Your task to perform on an android device: Add jbl charge 4 to the cart on ebay.com, then select checkout. Image 0: 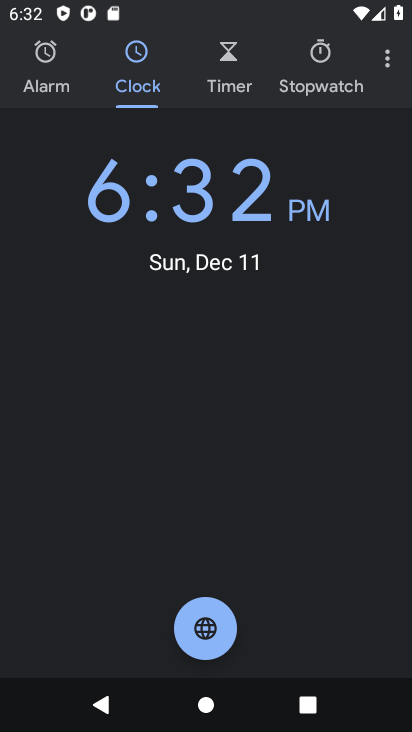
Step 0: press home button
Your task to perform on an android device: Add jbl charge 4 to the cart on ebay.com, then select checkout. Image 1: 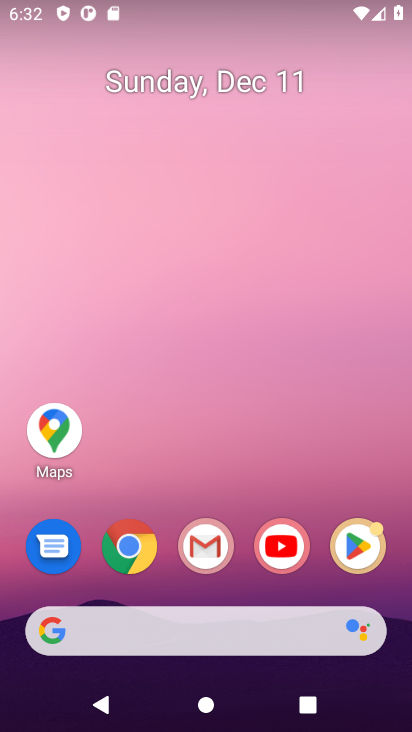
Step 1: click (125, 546)
Your task to perform on an android device: Add jbl charge 4 to the cart on ebay.com, then select checkout. Image 2: 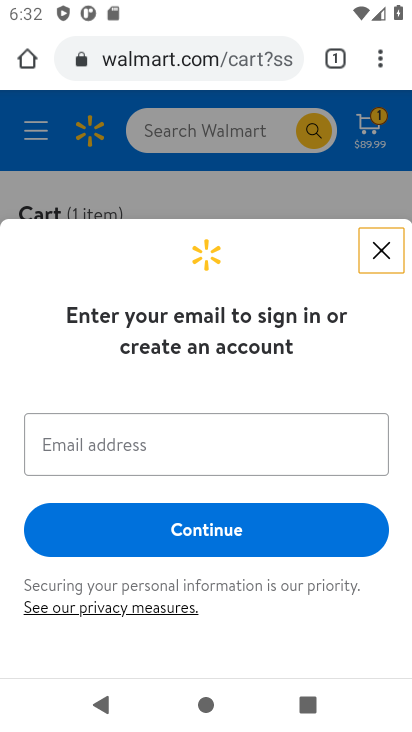
Step 2: click (164, 65)
Your task to perform on an android device: Add jbl charge 4 to the cart on ebay.com, then select checkout. Image 3: 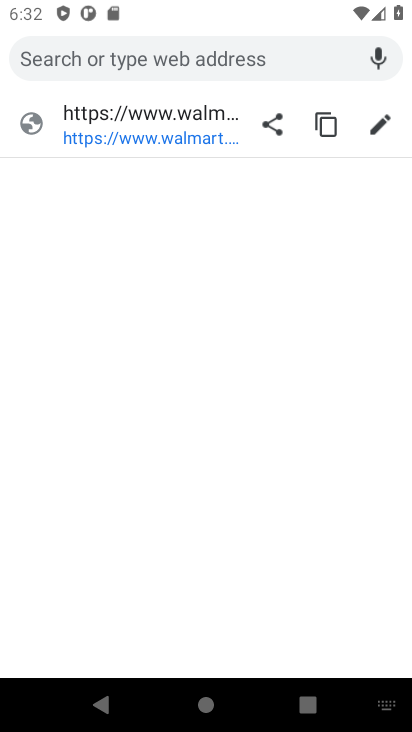
Step 3: type "ebay.com"
Your task to perform on an android device: Add jbl charge 4 to the cart on ebay.com, then select checkout. Image 4: 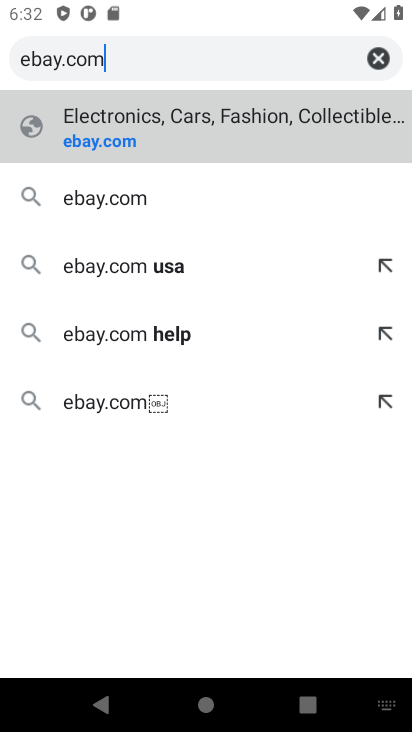
Step 4: click (86, 143)
Your task to perform on an android device: Add jbl charge 4 to the cart on ebay.com, then select checkout. Image 5: 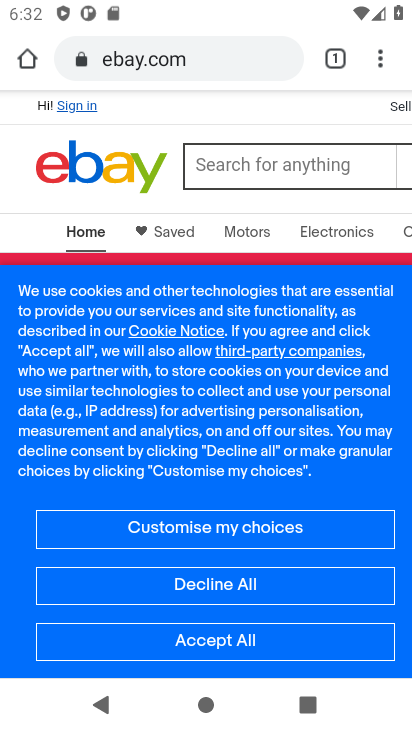
Step 5: click (283, 176)
Your task to perform on an android device: Add jbl charge 4 to the cart on ebay.com, then select checkout. Image 6: 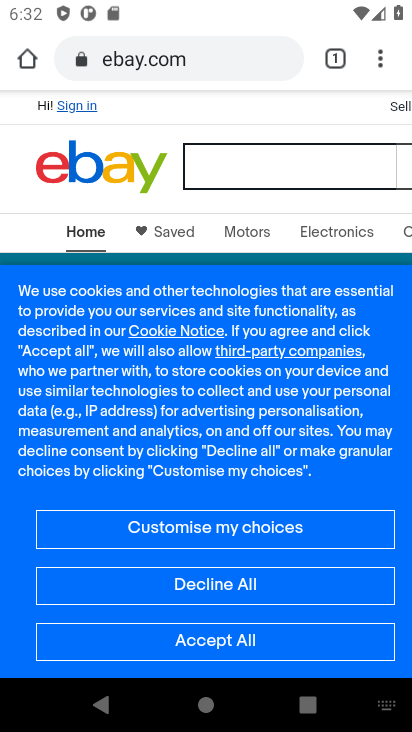
Step 6: type "jbl charge 4"
Your task to perform on an android device: Add jbl charge 4 to the cart on ebay.com, then select checkout. Image 7: 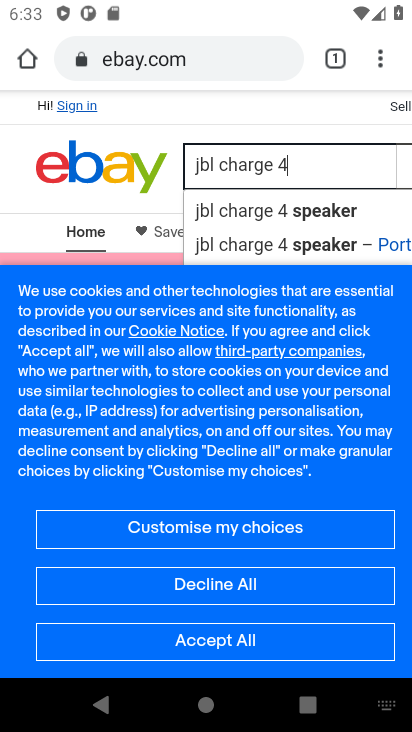
Step 7: click (313, 210)
Your task to perform on an android device: Add jbl charge 4 to the cart on ebay.com, then select checkout. Image 8: 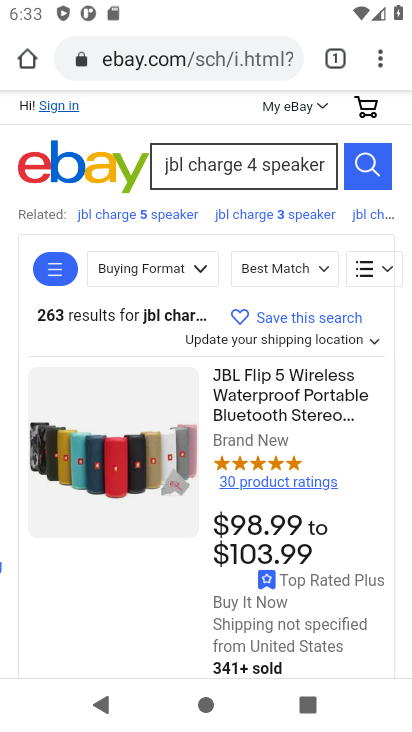
Step 8: drag from (138, 567) to (120, 227)
Your task to perform on an android device: Add jbl charge 4 to the cart on ebay.com, then select checkout. Image 9: 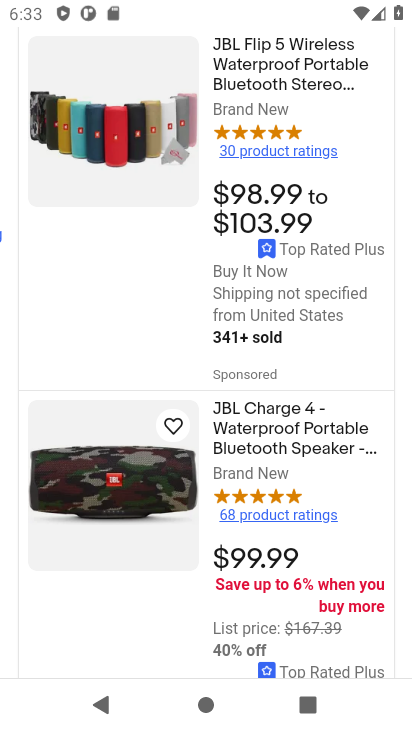
Step 9: click (266, 444)
Your task to perform on an android device: Add jbl charge 4 to the cart on ebay.com, then select checkout. Image 10: 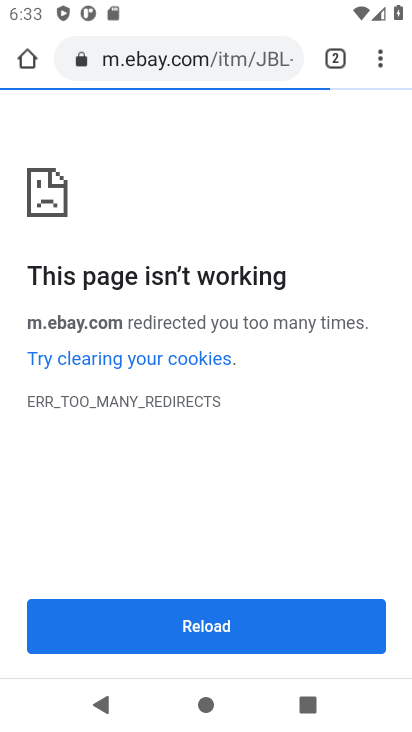
Step 10: task complete